Your task to perform on an android device: remove spam from my inbox in the gmail app Image 0: 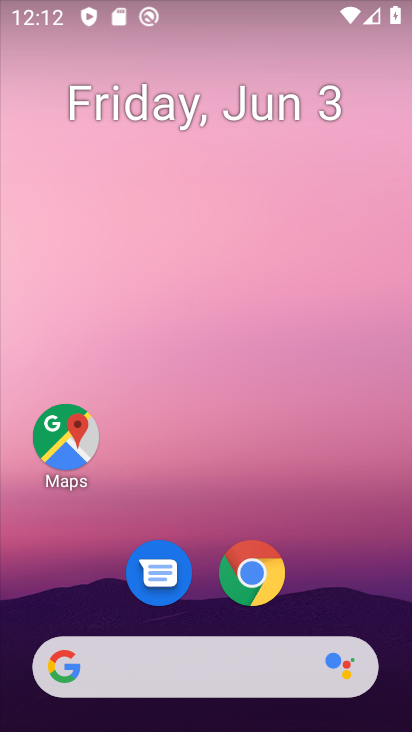
Step 0: task complete